Your task to perform on an android device: Is it going to rain tomorrow? Image 0: 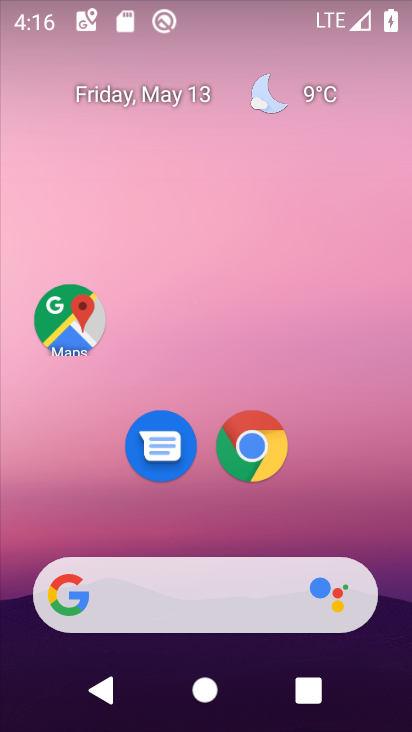
Step 0: drag from (247, 537) to (205, 63)
Your task to perform on an android device: Is it going to rain tomorrow? Image 1: 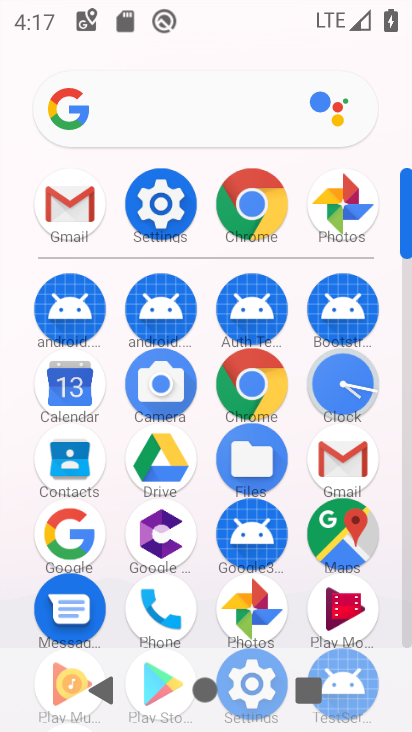
Step 1: click (202, 111)
Your task to perform on an android device: Is it going to rain tomorrow? Image 2: 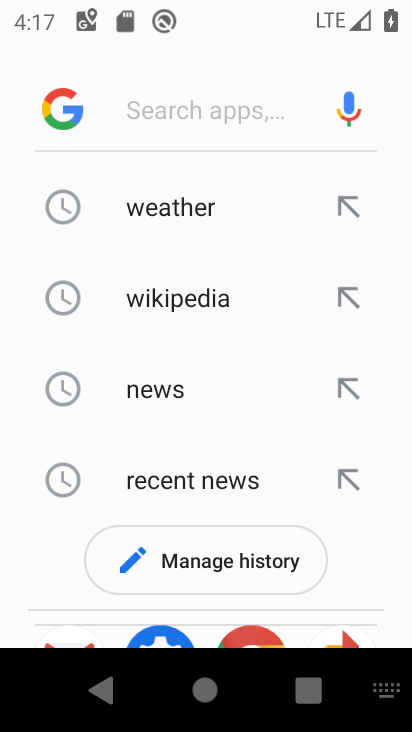
Step 2: type "is it going to rain tomorrow"
Your task to perform on an android device: Is it going to rain tomorrow? Image 3: 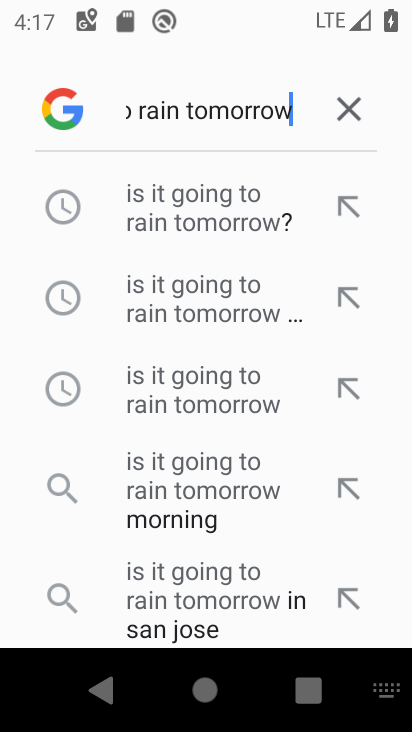
Step 3: click (163, 206)
Your task to perform on an android device: Is it going to rain tomorrow? Image 4: 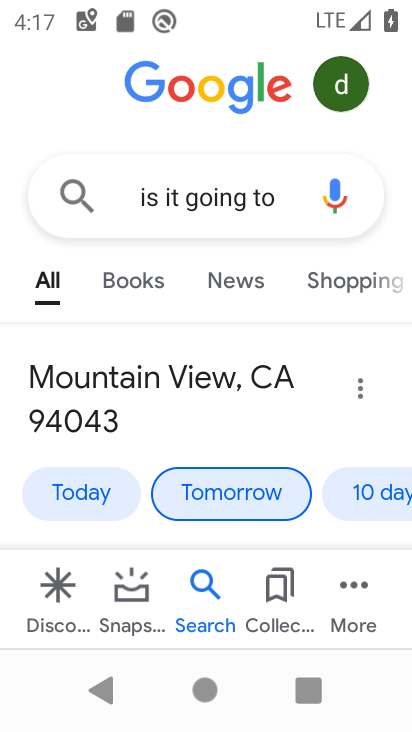
Step 4: task complete